Your task to perform on an android device: Is it going to rain this weekend? Image 0: 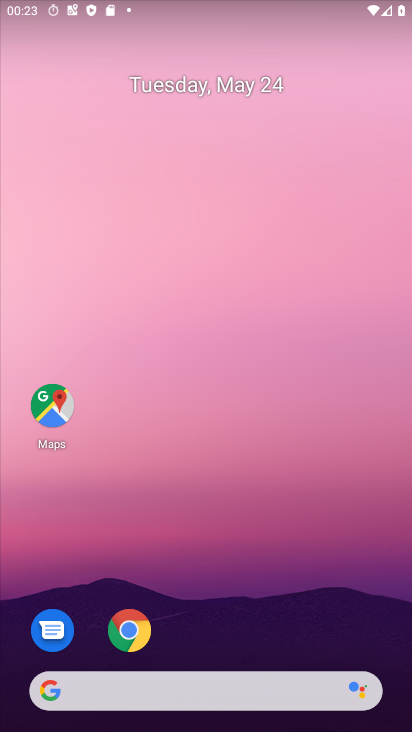
Step 0: click (109, 690)
Your task to perform on an android device: Is it going to rain this weekend? Image 1: 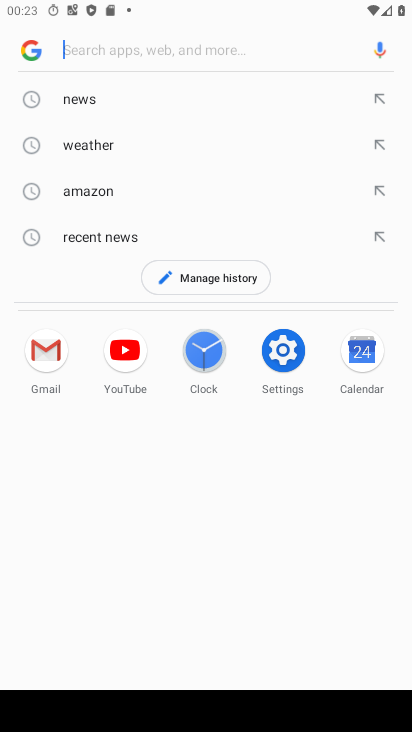
Step 1: click (82, 144)
Your task to perform on an android device: Is it going to rain this weekend? Image 2: 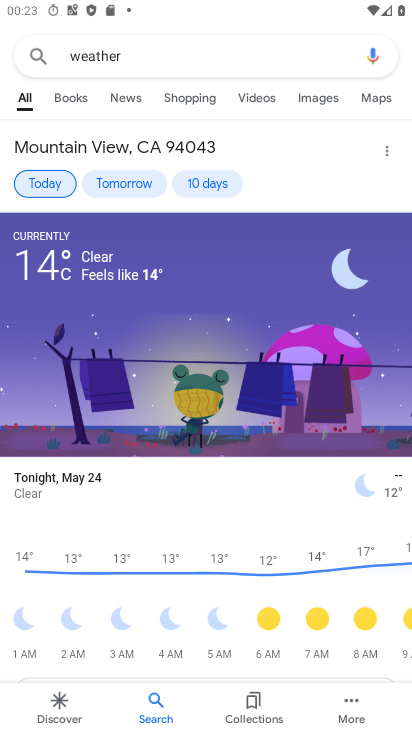
Step 2: click (200, 186)
Your task to perform on an android device: Is it going to rain this weekend? Image 3: 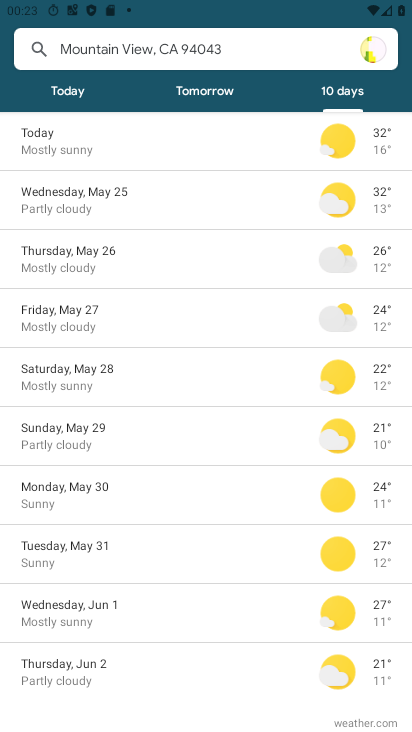
Step 3: task complete